Your task to perform on an android device: turn on data saver in the chrome app Image 0: 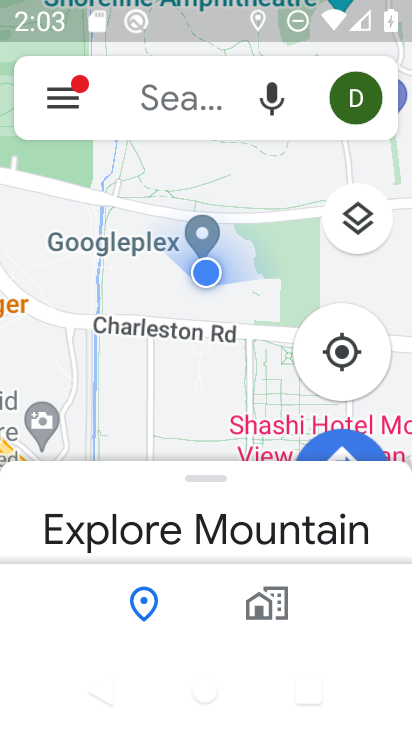
Step 0: press home button
Your task to perform on an android device: turn on data saver in the chrome app Image 1: 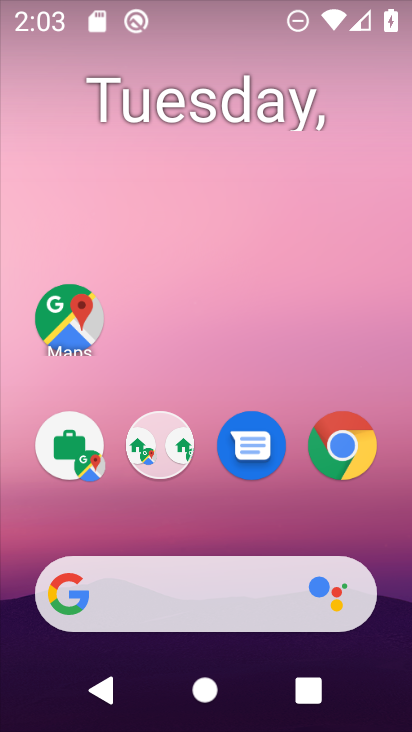
Step 1: click (368, 470)
Your task to perform on an android device: turn on data saver in the chrome app Image 2: 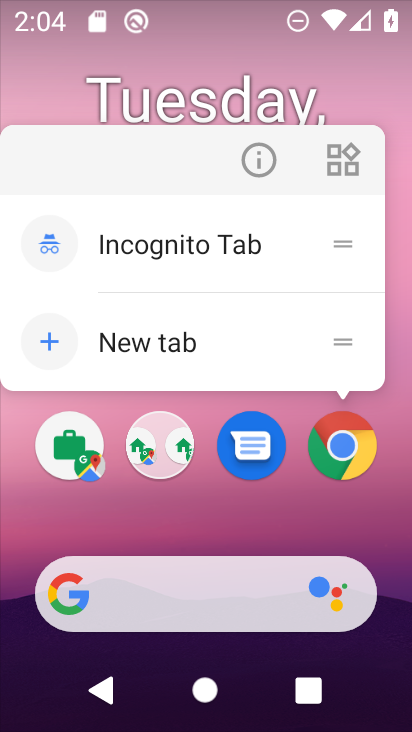
Step 2: task complete